Your task to perform on an android device: turn on wifi Image 0: 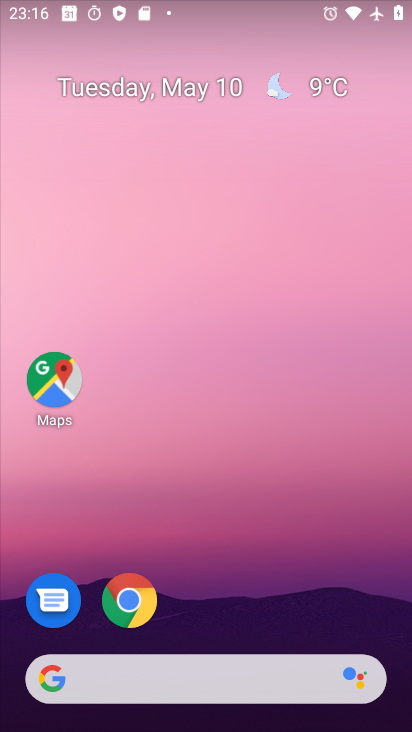
Step 0: drag from (261, 574) to (387, 326)
Your task to perform on an android device: turn on wifi Image 1: 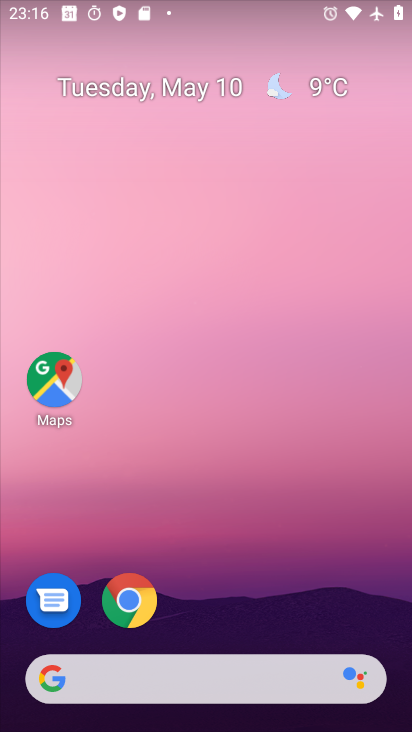
Step 1: drag from (295, 551) to (212, 28)
Your task to perform on an android device: turn on wifi Image 2: 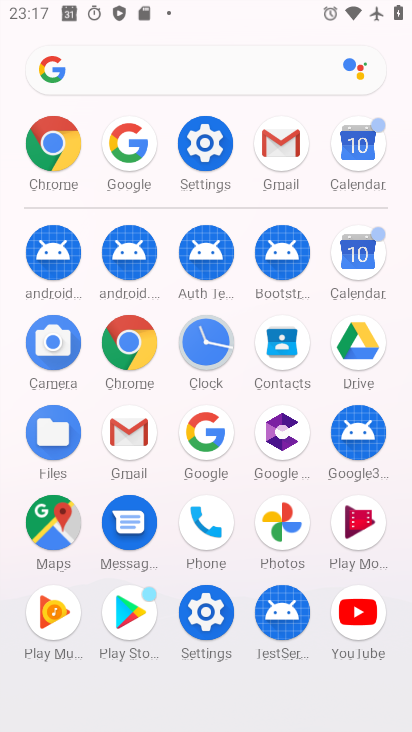
Step 2: drag from (244, 232) to (259, 0)
Your task to perform on an android device: turn on wifi Image 3: 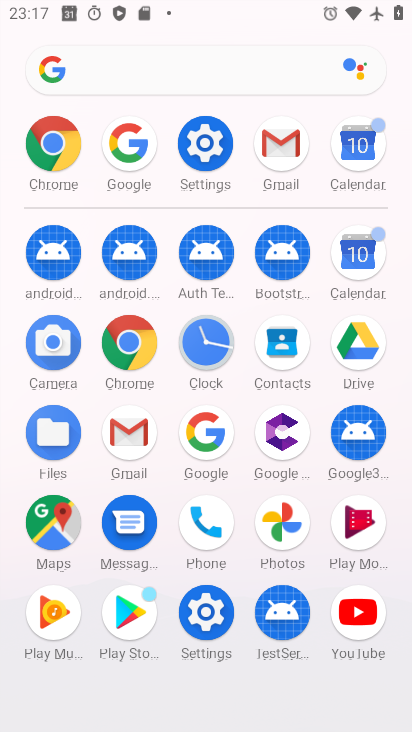
Step 3: click (207, 123)
Your task to perform on an android device: turn on wifi Image 4: 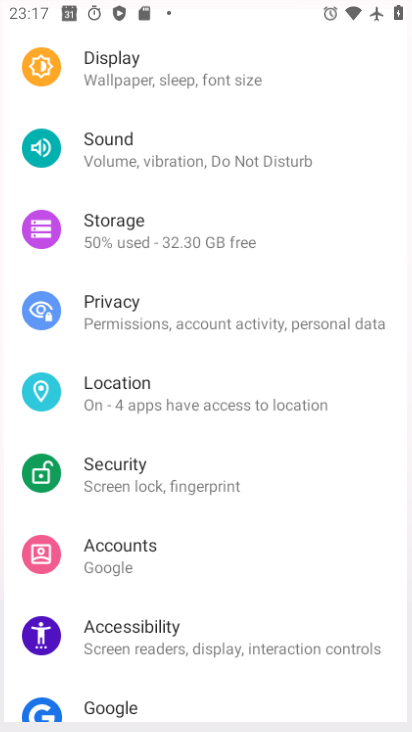
Step 4: click (207, 123)
Your task to perform on an android device: turn on wifi Image 5: 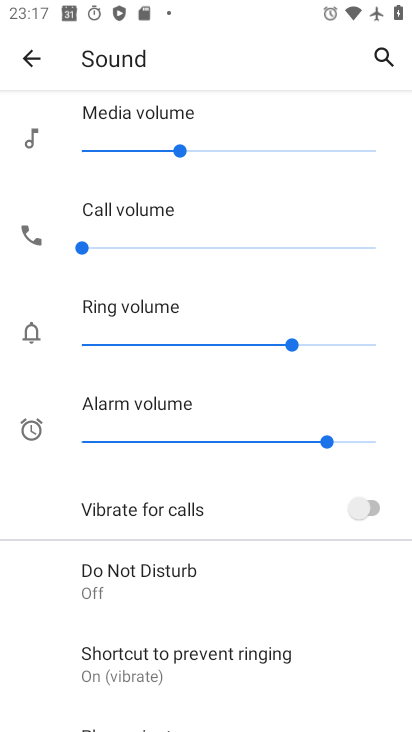
Step 5: click (23, 71)
Your task to perform on an android device: turn on wifi Image 6: 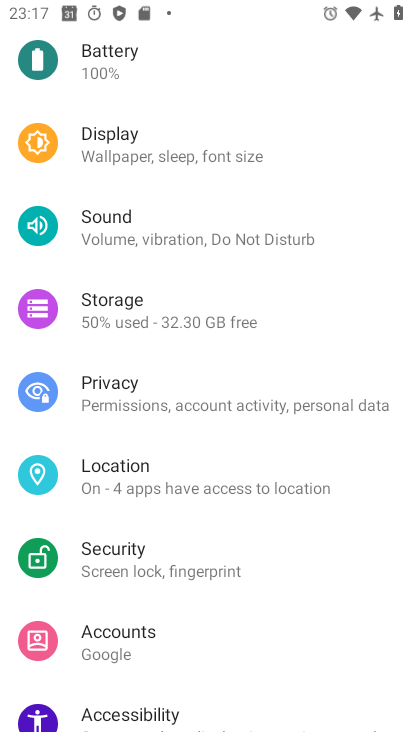
Step 6: drag from (143, 65) to (103, 451)
Your task to perform on an android device: turn on wifi Image 7: 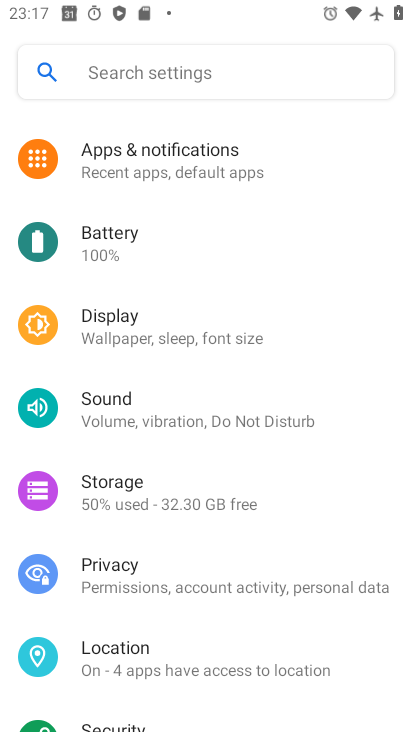
Step 7: drag from (153, 160) to (120, 522)
Your task to perform on an android device: turn on wifi Image 8: 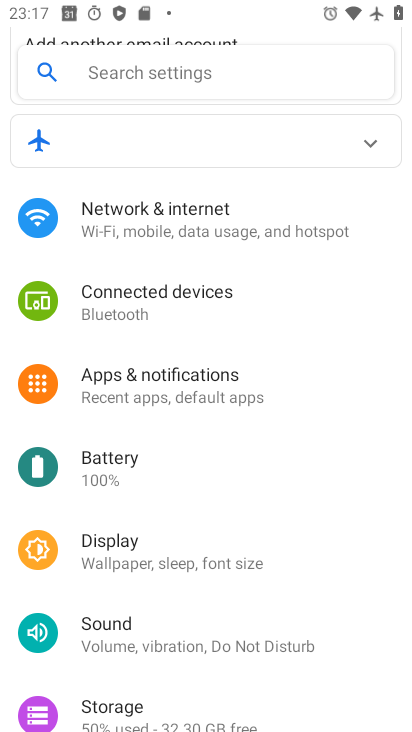
Step 8: click (196, 219)
Your task to perform on an android device: turn on wifi Image 9: 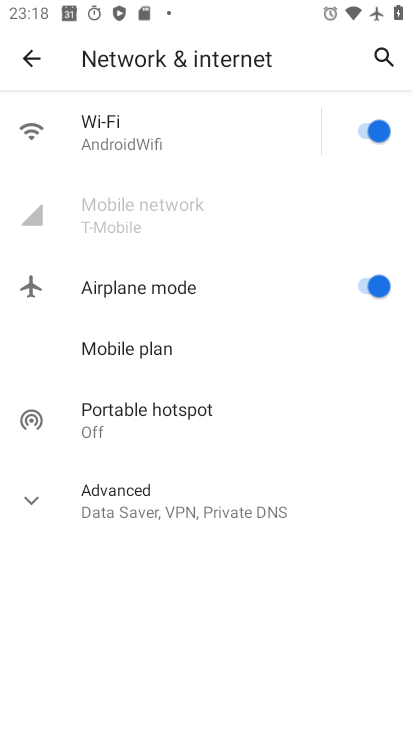
Step 9: click (107, 127)
Your task to perform on an android device: turn on wifi Image 10: 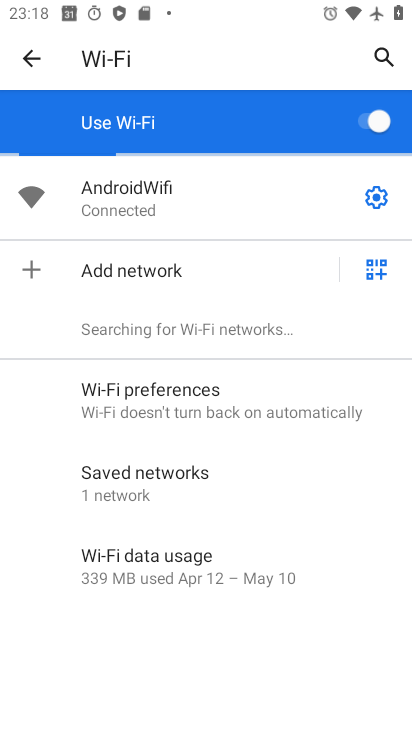
Step 10: task complete